Your task to perform on an android device: check android version Image 0: 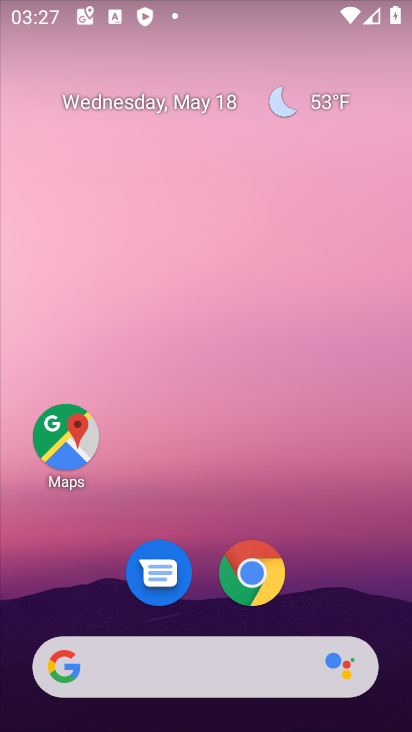
Step 0: drag from (204, 606) to (217, 151)
Your task to perform on an android device: check android version Image 1: 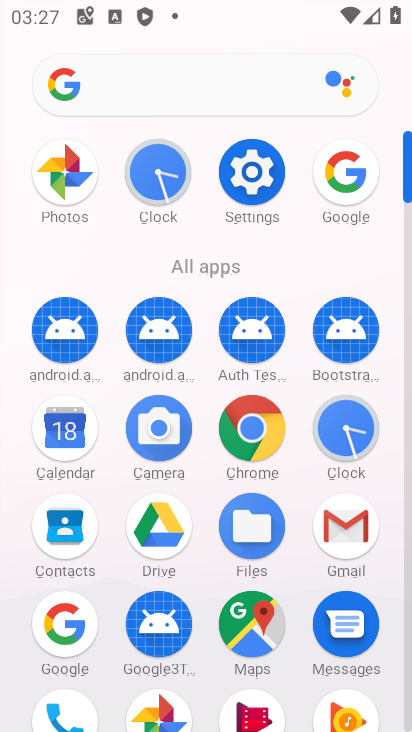
Step 1: click (233, 158)
Your task to perform on an android device: check android version Image 2: 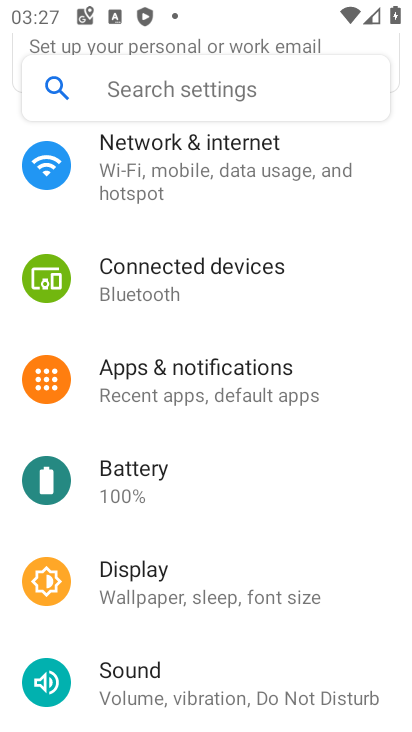
Step 2: drag from (187, 615) to (204, 307)
Your task to perform on an android device: check android version Image 3: 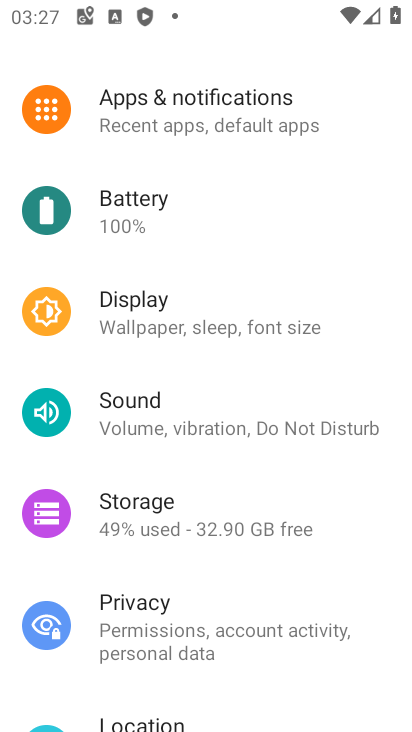
Step 3: drag from (266, 617) to (259, 326)
Your task to perform on an android device: check android version Image 4: 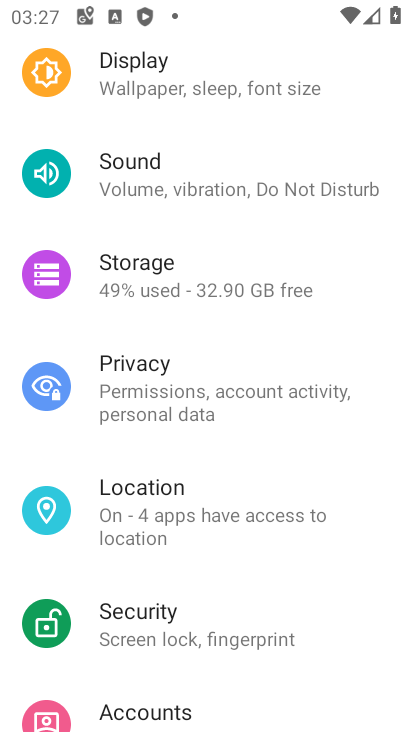
Step 4: drag from (258, 546) to (246, 205)
Your task to perform on an android device: check android version Image 5: 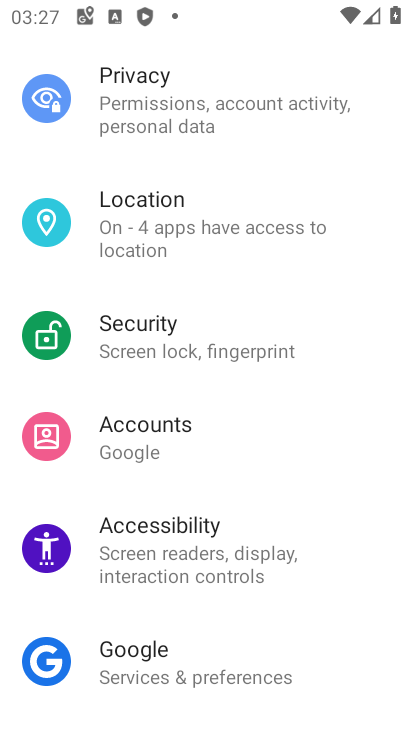
Step 5: drag from (249, 580) to (263, 304)
Your task to perform on an android device: check android version Image 6: 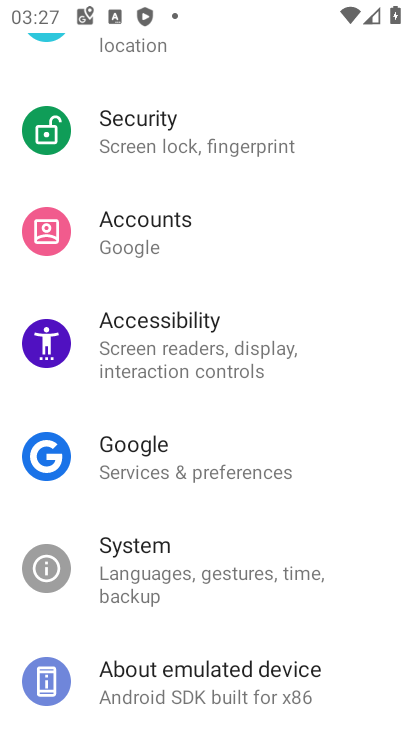
Step 6: drag from (268, 653) to (266, 386)
Your task to perform on an android device: check android version Image 7: 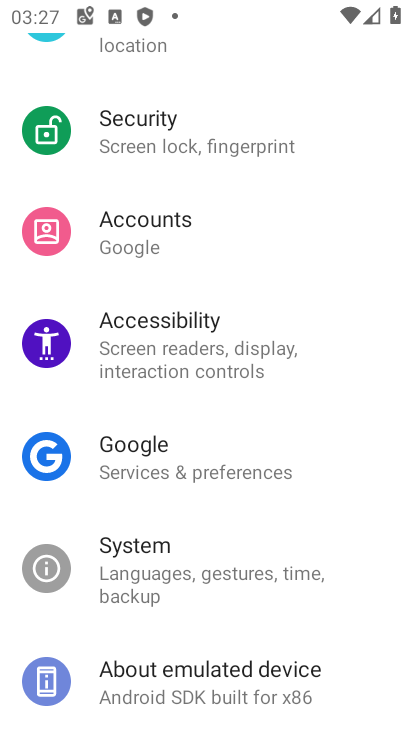
Step 7: click (241, 680)
Your task to perform on an android device: check android version Image 8: 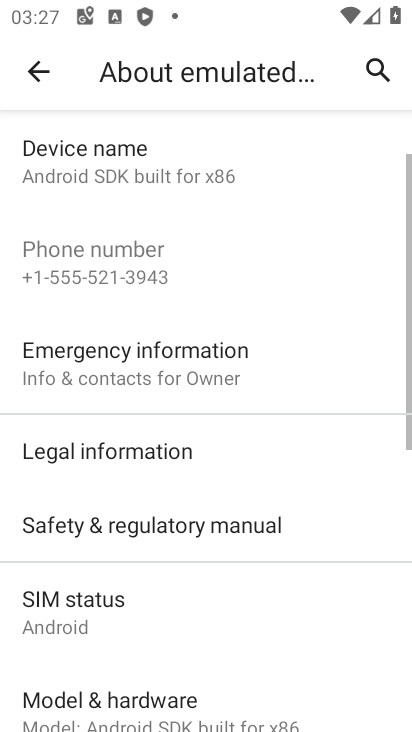
Step 8: drag from (207, 641) to (285, 302)
Your task to perform on an android device: check android version Image 9: 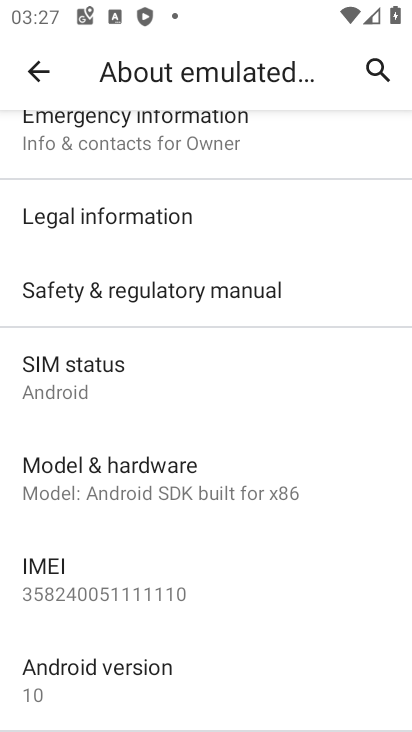
Step 9: click (171, 666)
Your task to perform on an android device: check android version Image 10: 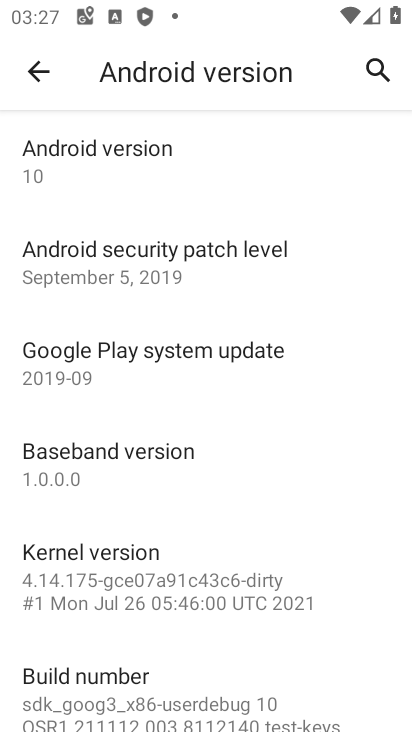
Step 10: click (148, 161)
Your task to perform on an android device: check android version Image 11: 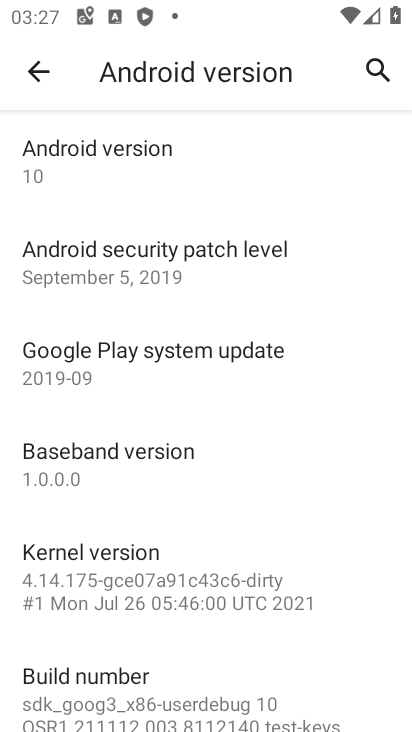
Step 11: drag from (190, 648) to (191, 436)
Your task to perform on an android device: check android version Image 12: 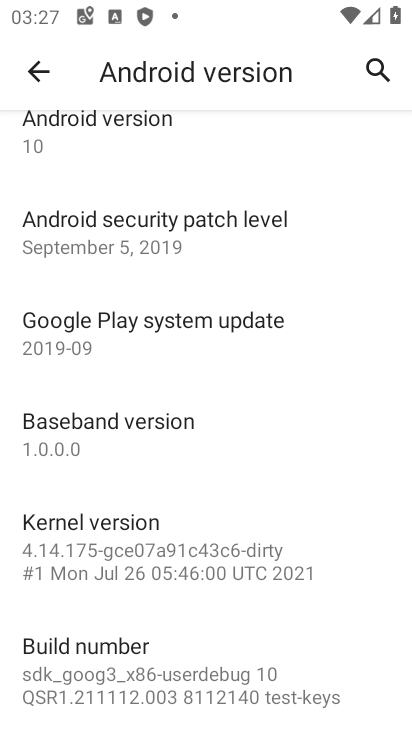
Step 12: drag from (219, 619) to (230, 392)
Your task to perform on an android device: check android version Image 13: 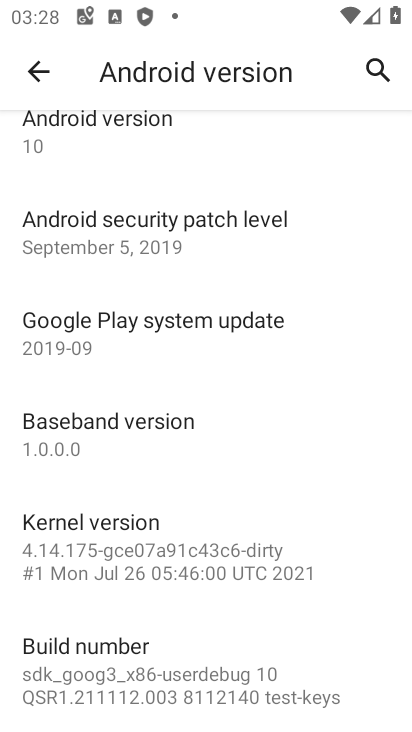
Step 13: drag from (220, 636) to (219, 359)
Your task to perform on an android device: check android version Image 14: 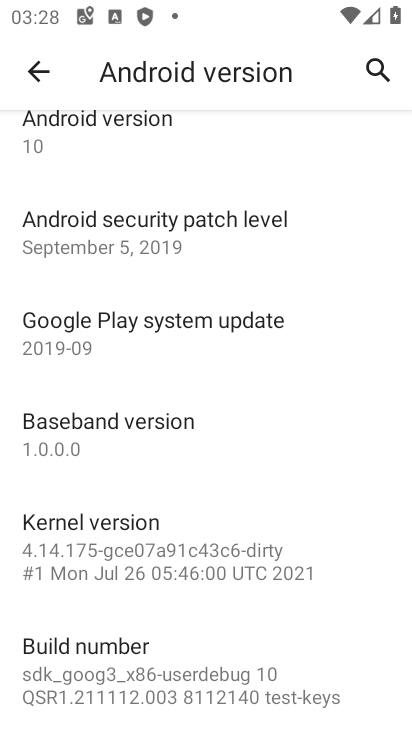
Step 14: drag from (262, 593) to (303, 252)
Your task to perform on an android device: check android version Image 15: 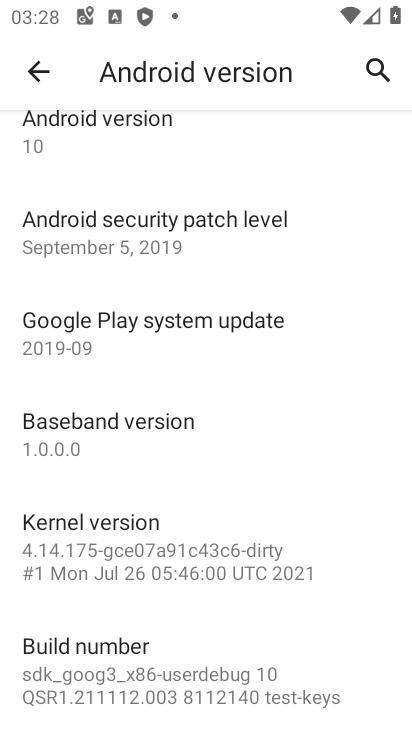
Step 15: click (204, 150)
Your task to perform on an android device: check android version Image 16: 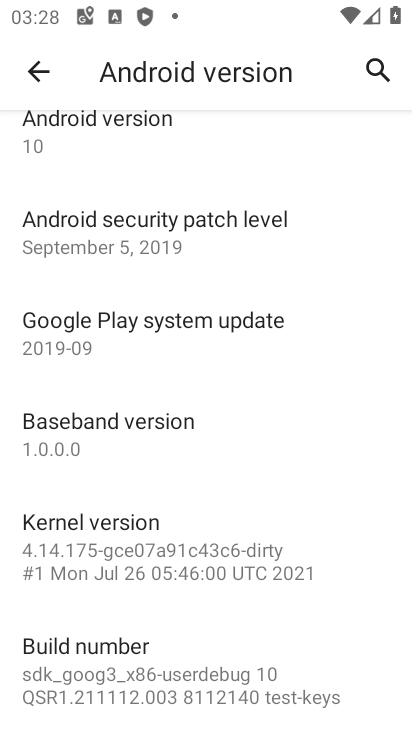
Step 16: task complete